Your task to perform on an android device: Go to Yahoo.com Image 0: 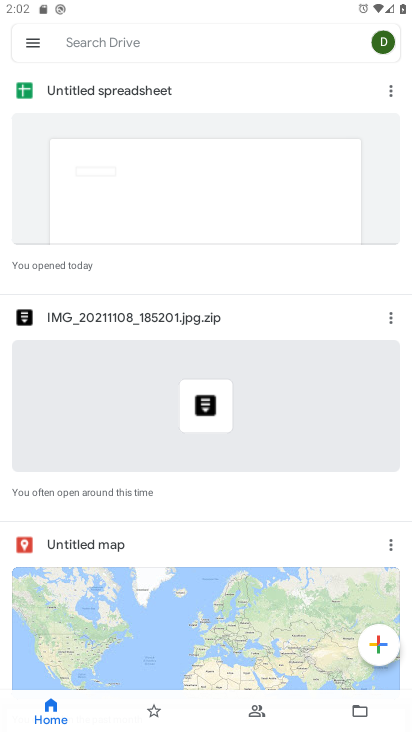
Step 0: press home button
Your task to perform on an android device: Go to Yahoo.com Image 1: 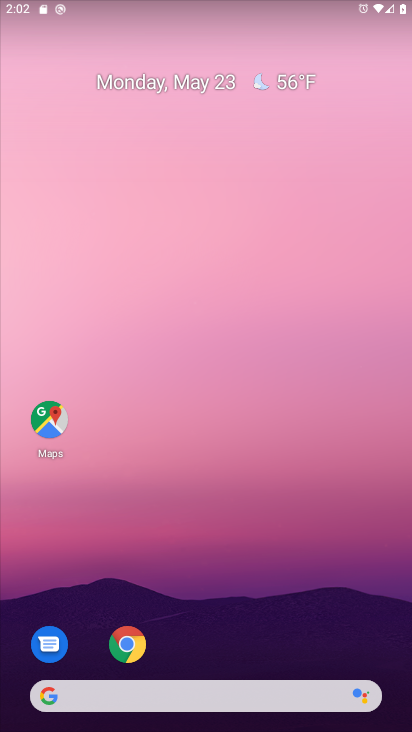
Step 1: click (130, 645)
Your task to perform on an android device: Go to Yahoo.com Image 2: 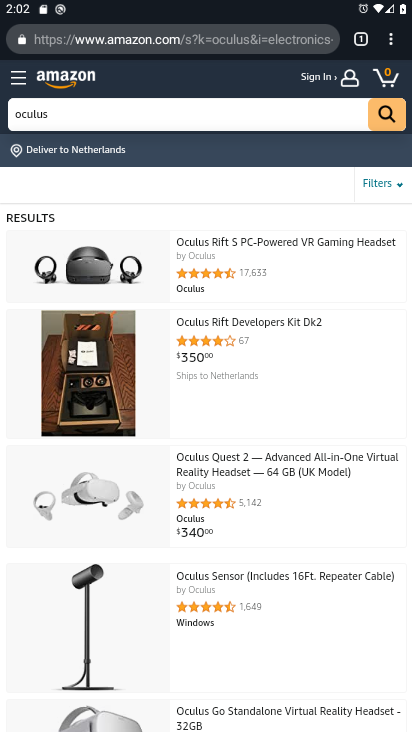
Step 2: press back button
Your task to perform on an android device: Go to Yahoo.com Image 3: 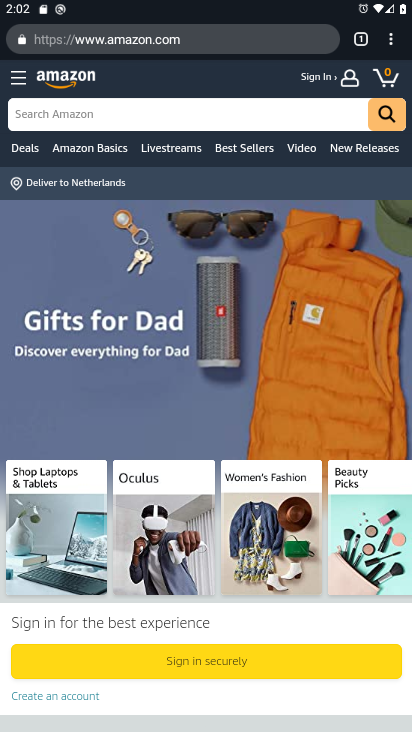
Step 3: press back button
Your task to perform on an android device: Go to Yahoo.com Image 4: 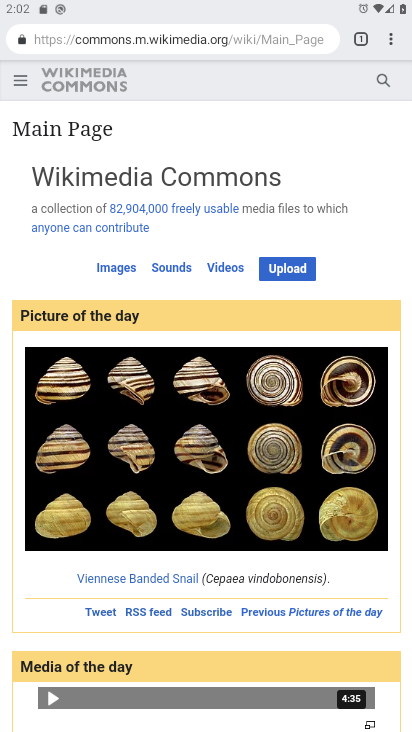
Step 4: press back button
Your task to perform on an android device: Go to Yahoo.com Image 5: 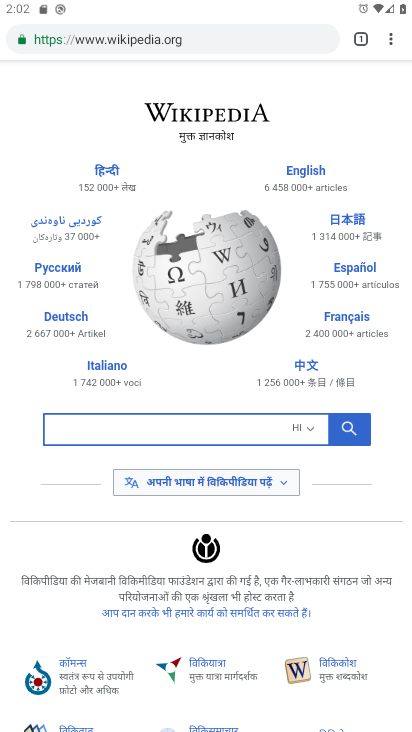
Step 5: press back button
Your task to perform on an android device: Go to Yahoo.com Image 6: 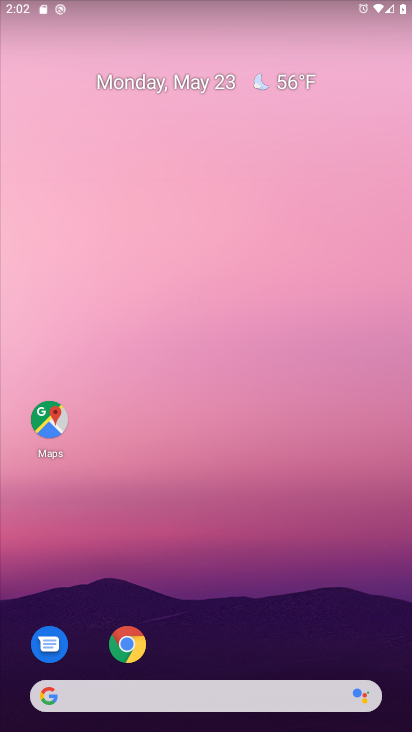
Step 6: click (123, 648)
Your task to perform on an android device: Go to Yahoo.com Image 7: 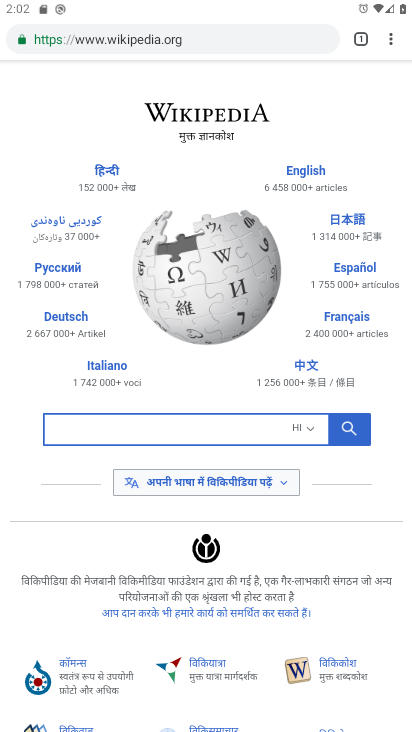
Step 7: click (151, 49)
Your task to perform on an android device: Go to Yahoo.com Image 8: 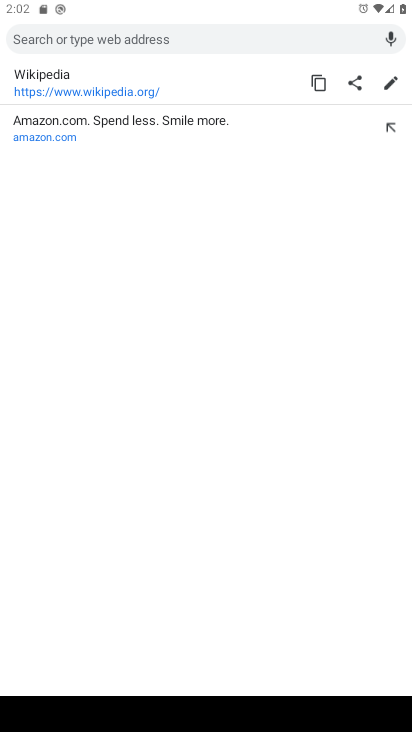
Step 8: type "www.yahoo.com"
Your task to perform on an android device: Go to Yahoo.com Image 9: 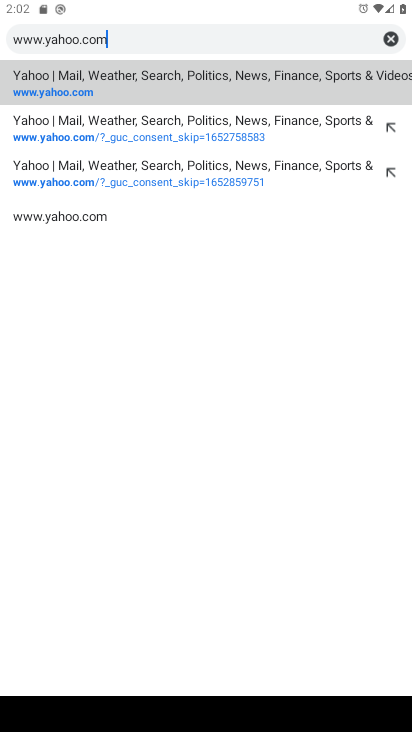
Step 9: click (67, 96)
Your task to perform on an android device: Go to Yahoo.com Image 10: 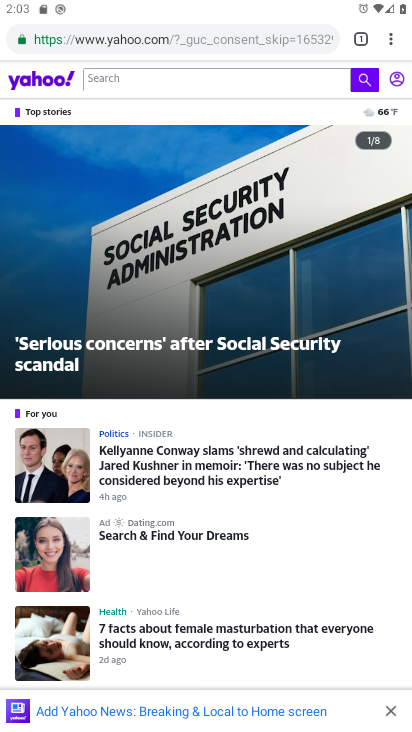
Step 10: task complete